Your task to perform on an android device: turn on javascript in the chrome app Image 0: 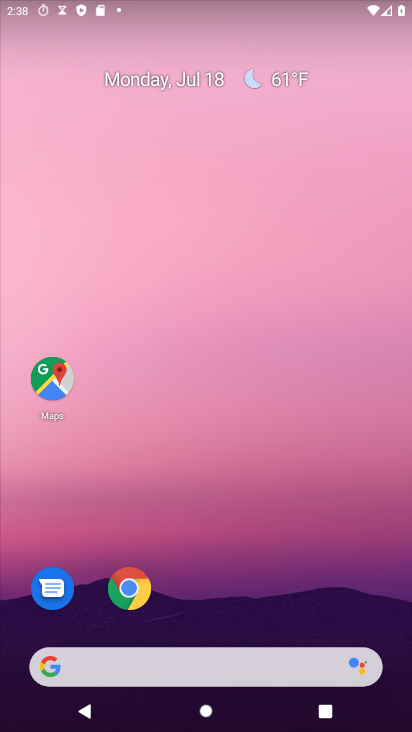
Step 0: drag from (327, 559) to (199, 12)
Your task to perform on an android device: turn on javascript in the chrome app Image 1: 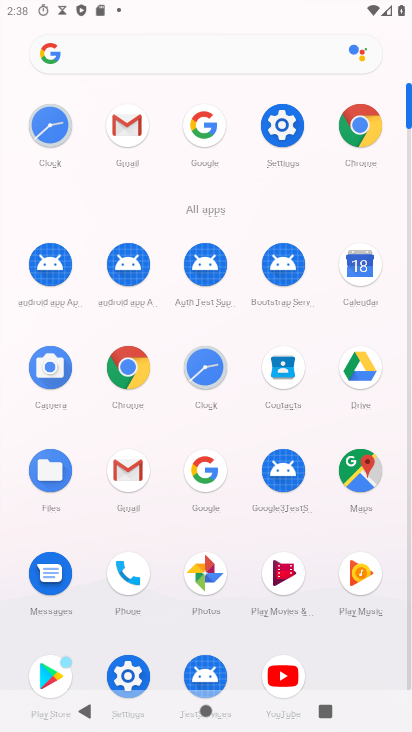
Step 1: click (347, 129)
Your task to perform on an android device: turn on javascript in the chrome app Image 2: 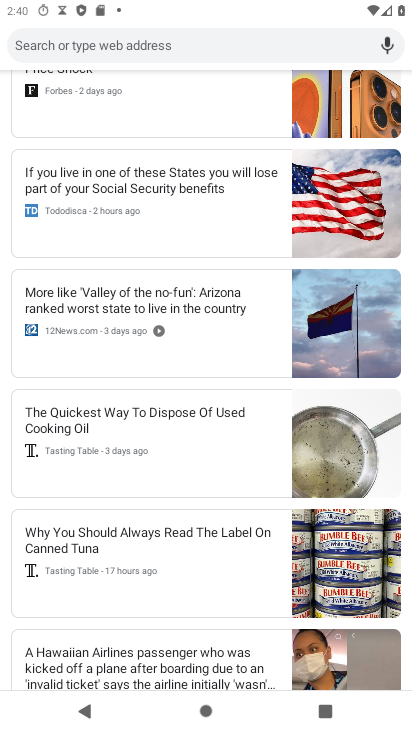
Step 2: drag from (293, 180) to (323, 727)
Your task to perform on an android device: turn on javascript in the chrome app Image 3: 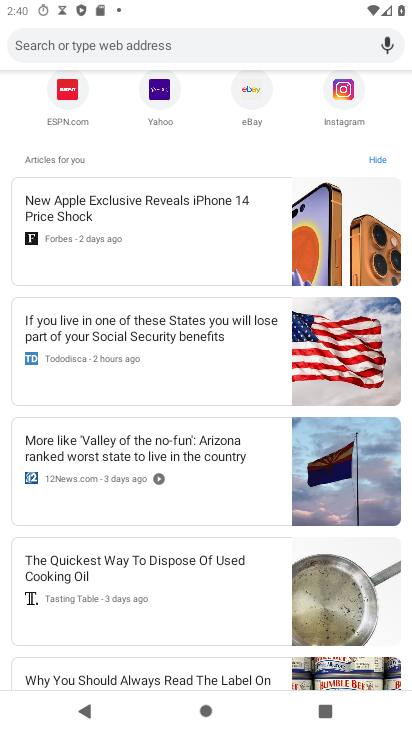
Step 3: drag from (256, 185) to (353, 704)
Your task to perform on an android device: turn on javascript in the chrome app Image 4: 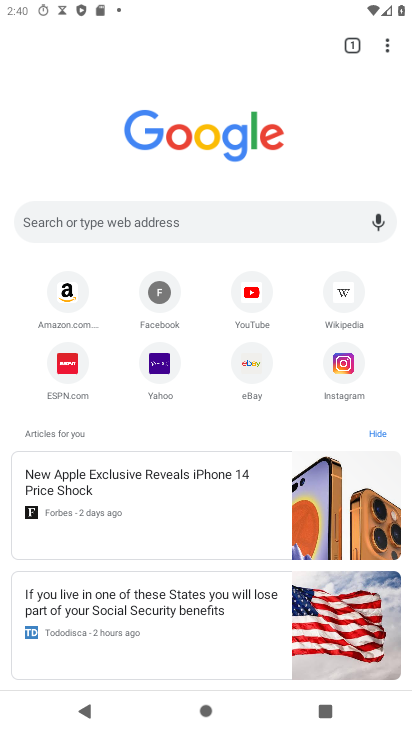
Step 4: drag from (402, 63) to (278, 380)
Your task to perform on an android device: turn on javascript in the chrome app Image 5: 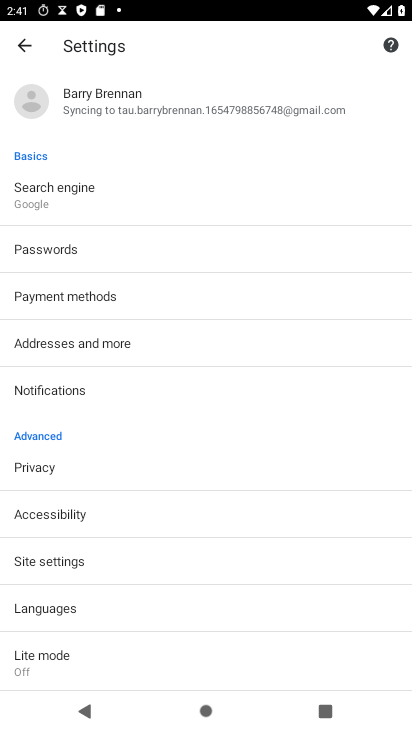
Step 5: click (84, 566)
Your task to perform on an android device: turn on javascript in the chrome app Image 6: 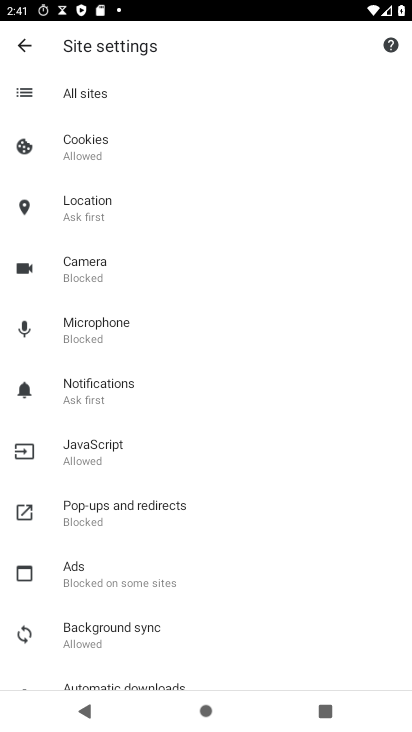
Step 6: click (130, 448)
Your task to perform on an android device: turn on javascript in the chrome app Image 7: 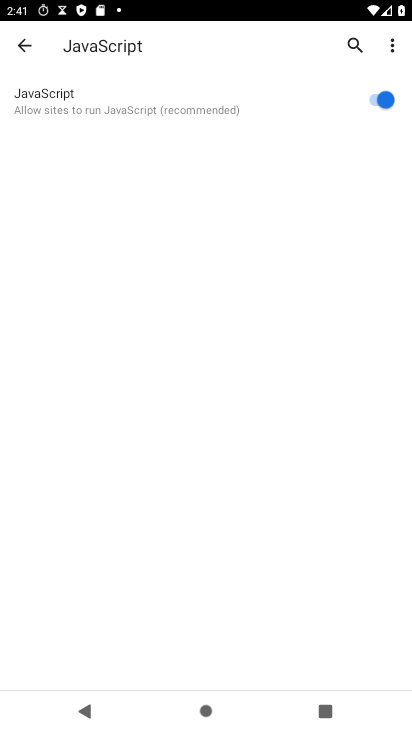
Step 7: task complete